Your task to perform on an android device: Open my contact list Image 0: 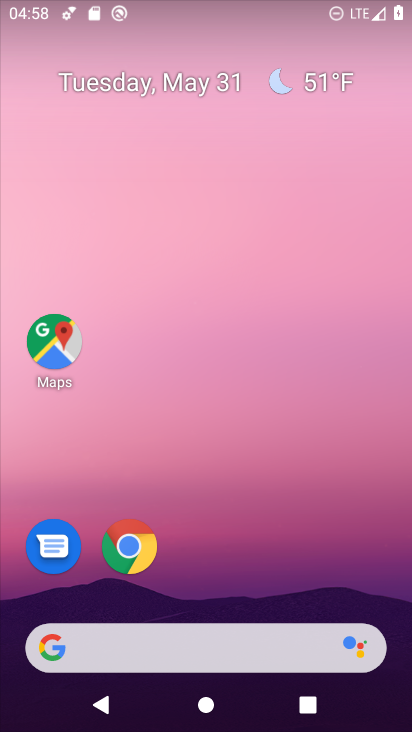
Step 0: drag from (209, 560) to (199, 293)
Your task to perform on an android device: Open my contact list Image 1: 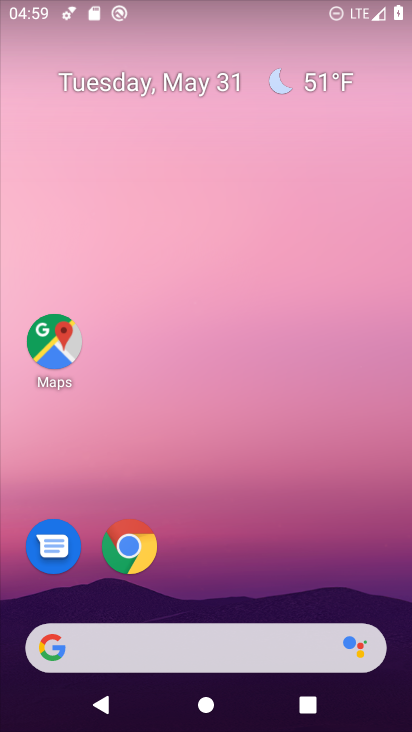
Step 1: drag from (210, 582) to (235, 186)
Your task to perform on an android device: Open my contact list Image 2: 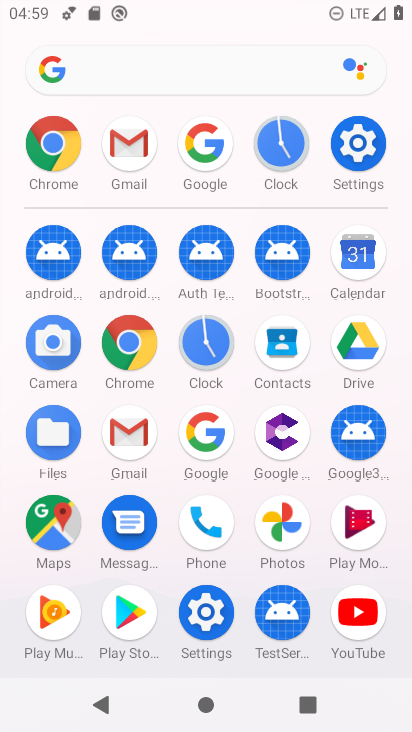
Step 2: click (283, 364)
Your task to perform on an android device: Open my contact list Image 3: 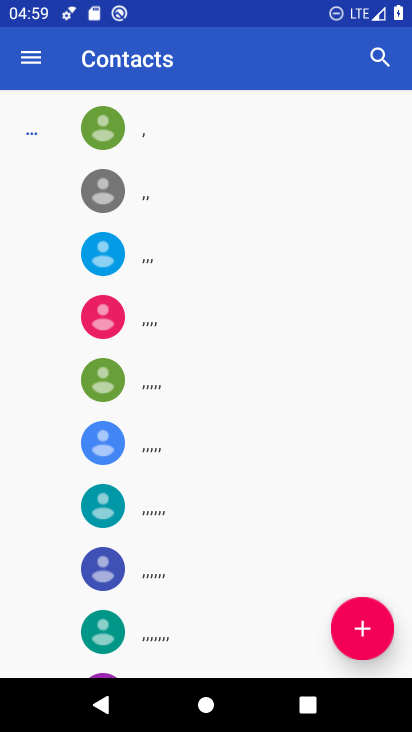
Step 3: task complete